Your task to perform on an android device: Open display settings Image 0: 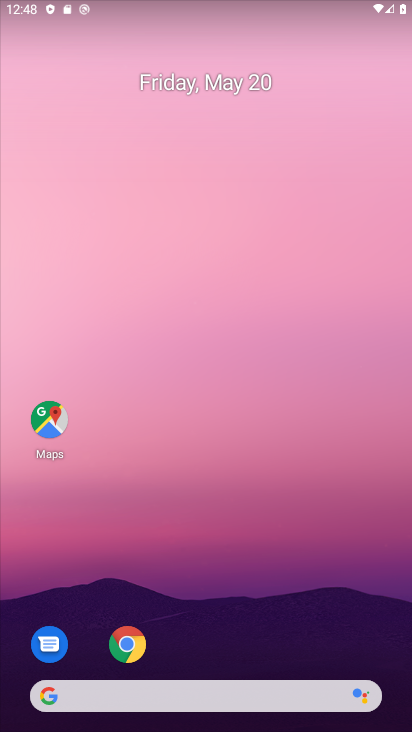
Step 0: click (294, 105)
Your task to perform on an android device: Open display settings Image 1: 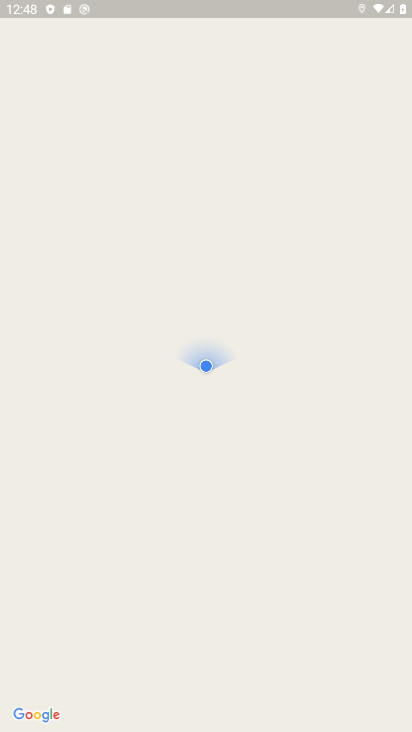
Step 1: press home button
Your task to perform on an android device: Open display settings Image 2: 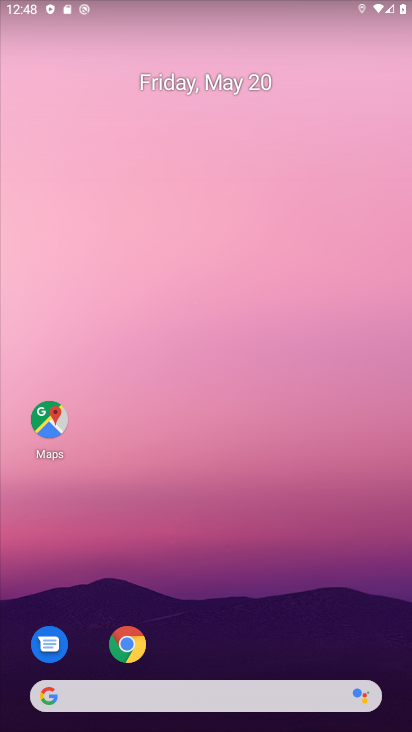
Step 2: drag from (311, 491) to (335, 97)
Your task to perform on an android device: Open display settings Image 3: 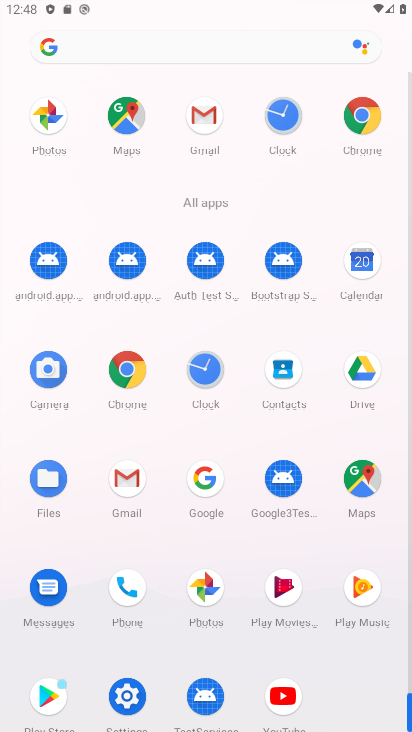
Step 3: click (116, 687)
Your task to perform on an android device: Open display settings Image 4: 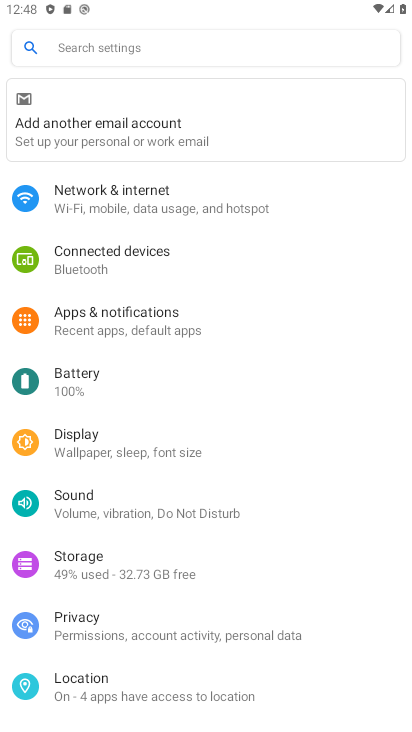
Step 4: click (104, 446)
Your task to perform on an android device: Open display settings Image 5: 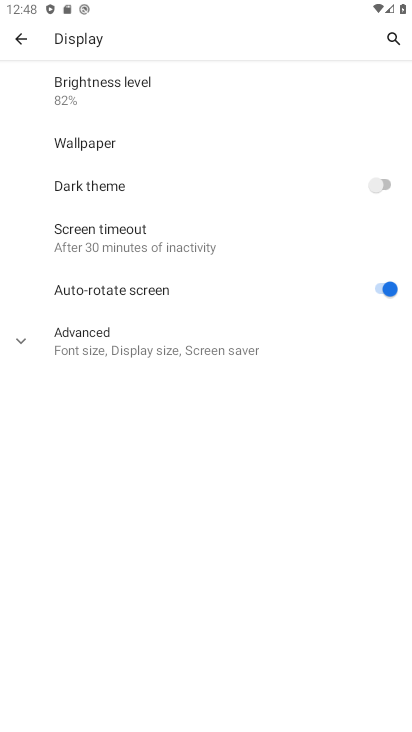
Step 5: task complete